Your task to perform on an android device: move a message to another label in the gmail app Image 0: 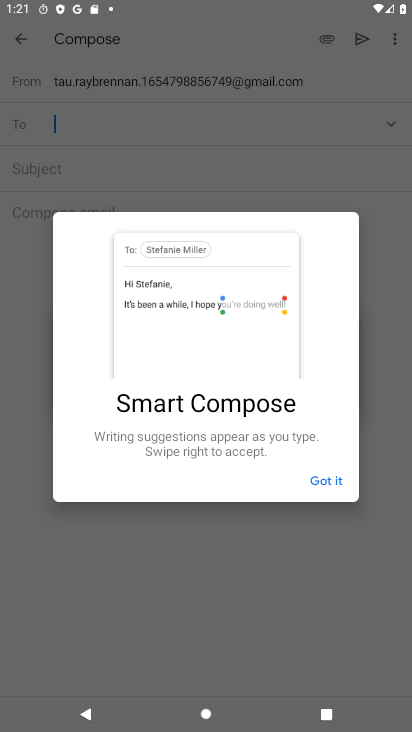
Step 0: press home button
Your task to perform on an android device: move a message to another label in the gmail app Image 1: 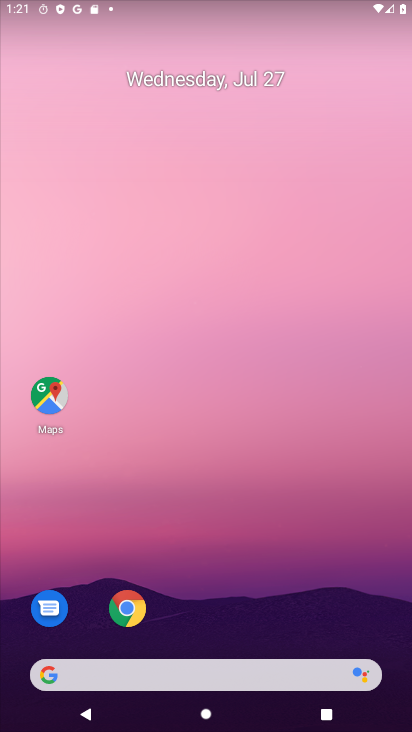
Step 1: drag from (200, 582) to (172, 221)
Your task to perform on an android device: move a message to another label in the gmail app Image 2: 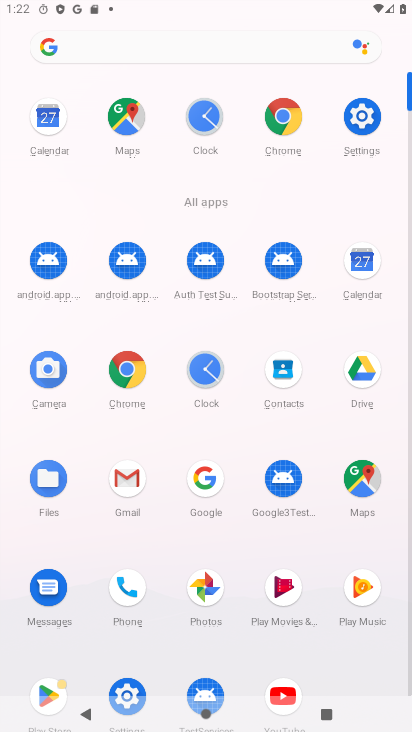
Step 2: click (120, 495)
Your task to perform on an android device: move a message to another label in the gmail app Image 3: 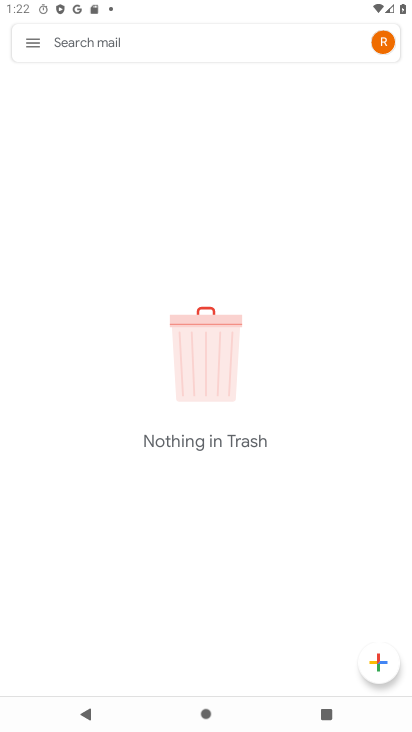
Step 3: click (34, 50)
Your task to perform on an android device: move a message to another label in the gmail app Image 4: 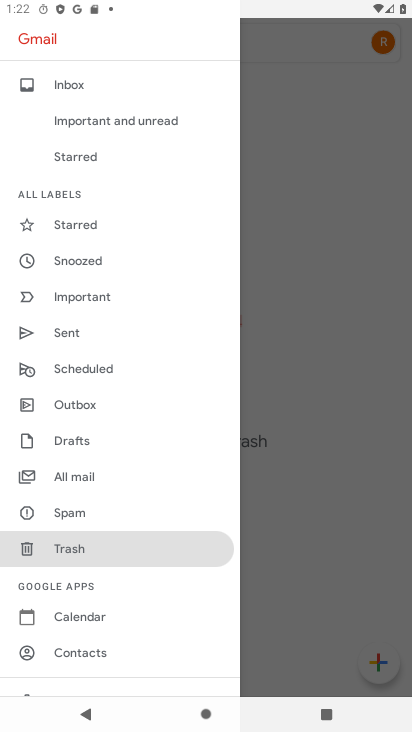
Step 4: click (68, 475)
Your task to perform on an android device: move a message to another label in the gmail app Image 5: 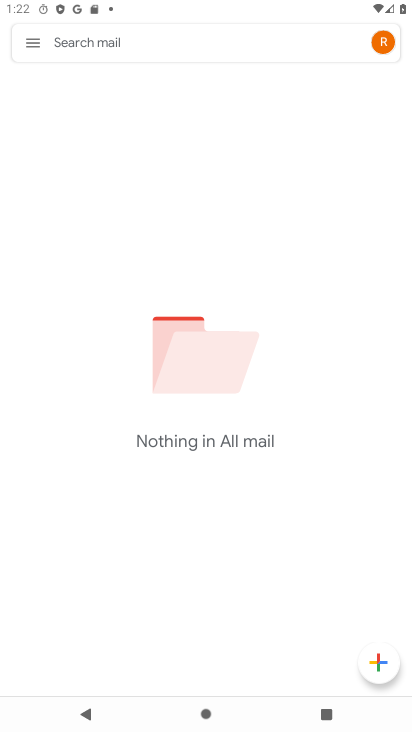
Step 5: task complete